Your task to perform on an android device: See recent photos Image 0: 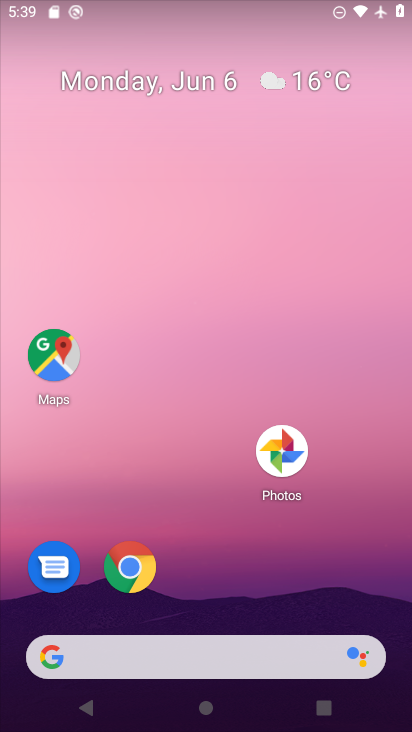
Step 0: drag from (290, 680) to (211, 65)
Your task to perform on an android device: See recent photos Image 1: 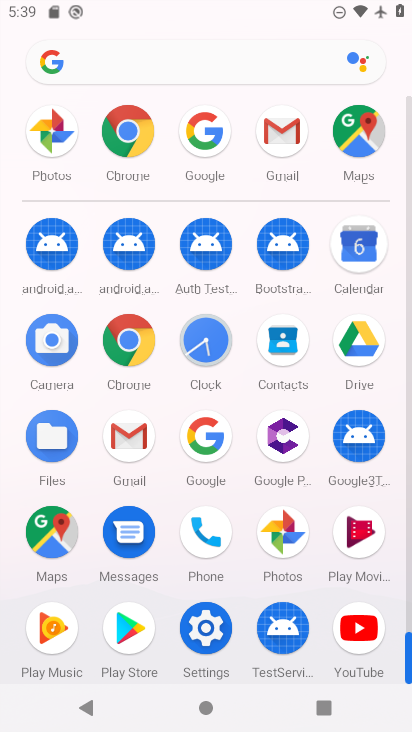
Step 1: click (278, 526)
Your task to perform on an android device: See recent photos Image 2: 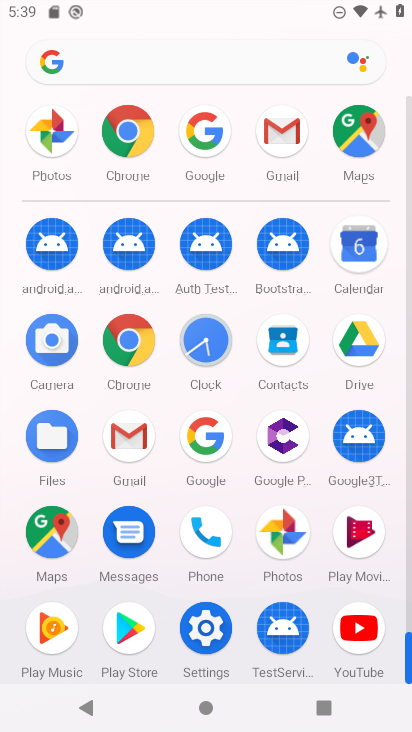
Step 2: click (278, 526)
Your task to perform on an android device: See recent photos Image 3: 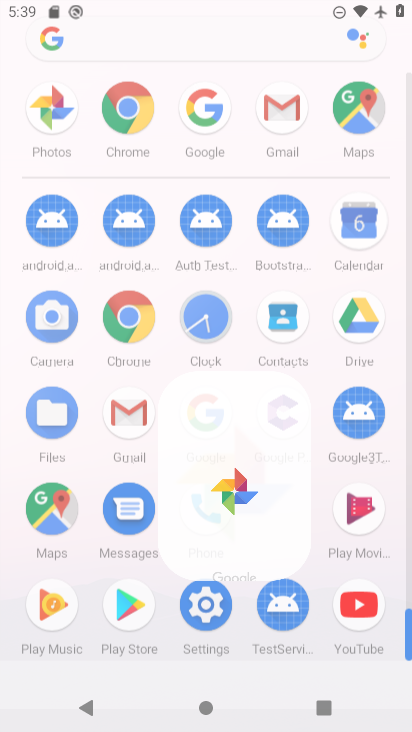
Step 3: click (278, 526)
Your task to perform on an android device: See recent photos Image 4: 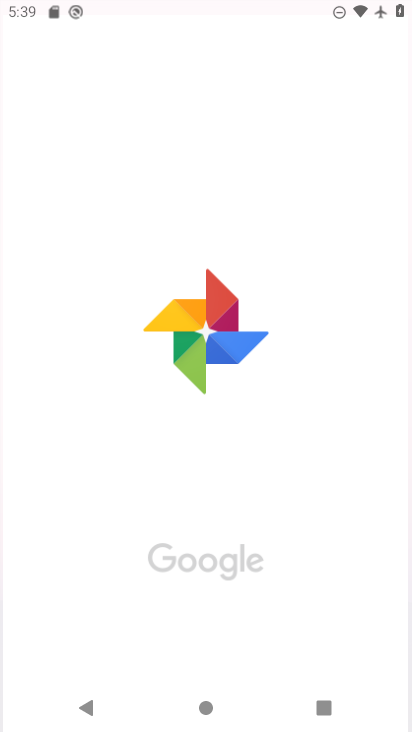
Step 4: click (278, 526)
Your task to perform on an android device: See recent photos Image 5: 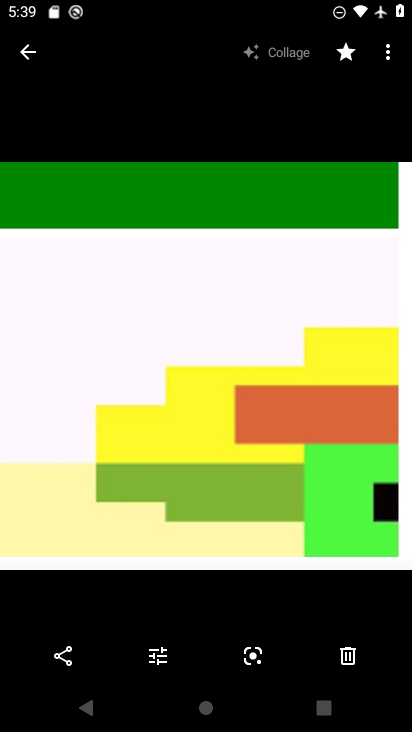
Step 5: task complete